Your task to perform on an android device: Open Google Chrome Image 0: 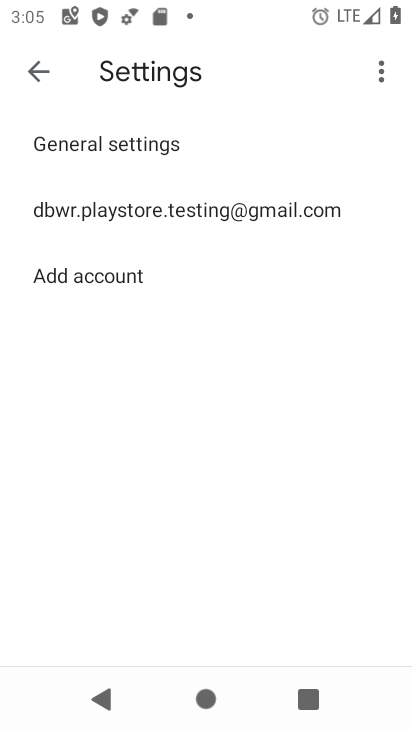
Step 0: press back button
Your task to perform on an android device: Open Google Chrome Image 1: 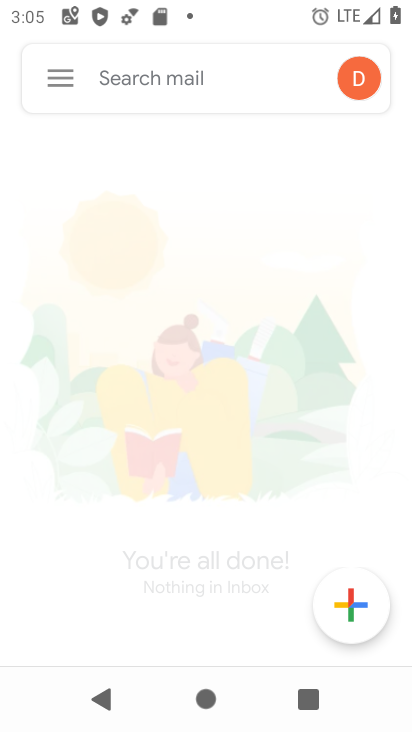
Step 1: press back button
Your task to perform on an android device: Open Google Chrome Image 2: 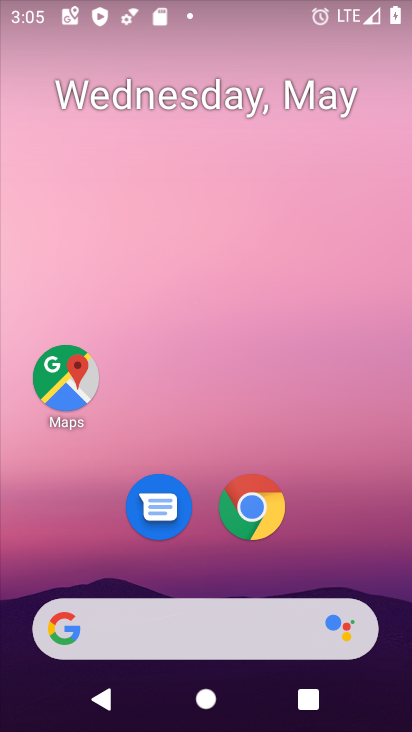
Step 2: click (252, 505)
Your task to perform on an android device: Open Google Chrome Image 3: 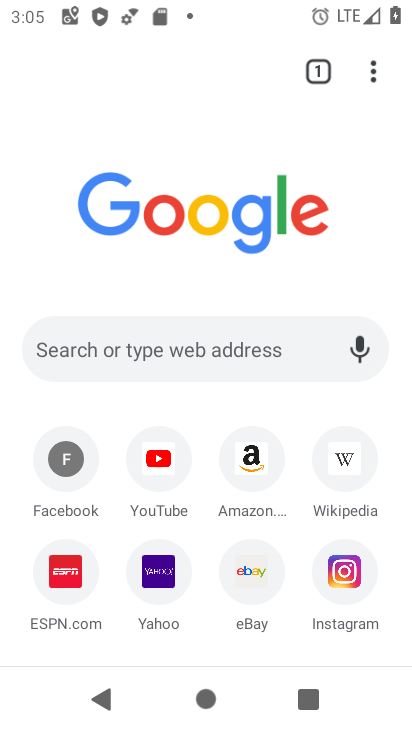
Step 3: task complete